Your task to perform on an android device: Open CNN.com Image 0: 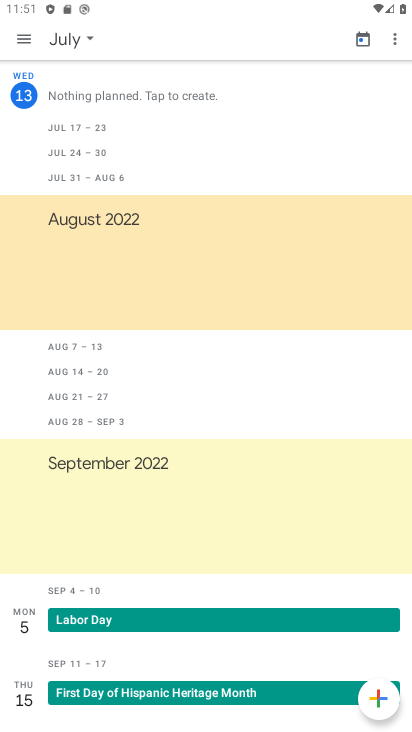
Step 0: press home button
Your task to perform on an android device: Open CNN.com Image 1: 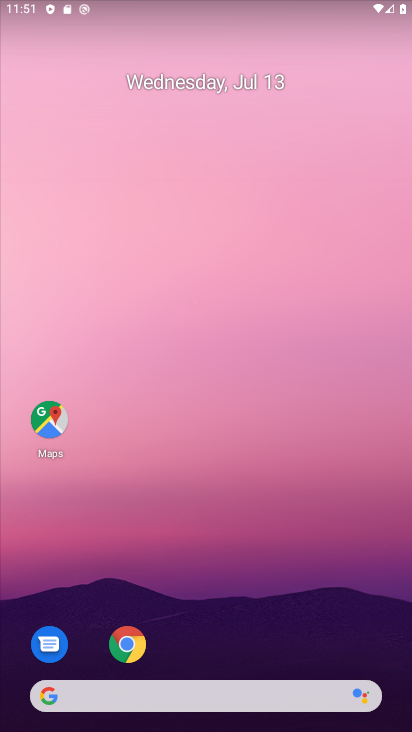
Step 1: click (133, 630)
Your task to perform on an android device: Open CNN.com Image 2: 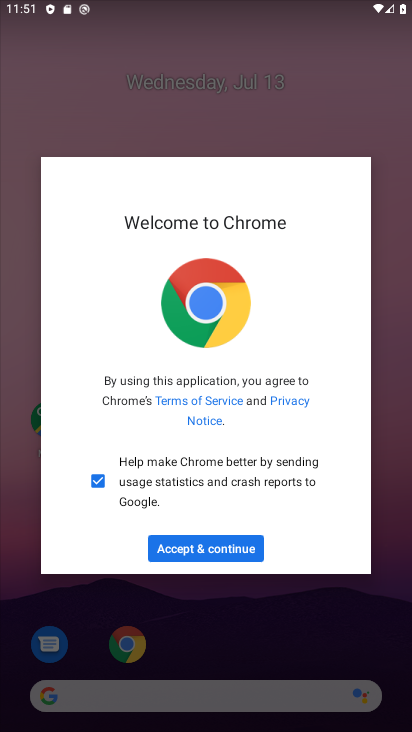
Step 2: click (241, 541)
Your task to perform on an android device: Open CNN.com Image 3: 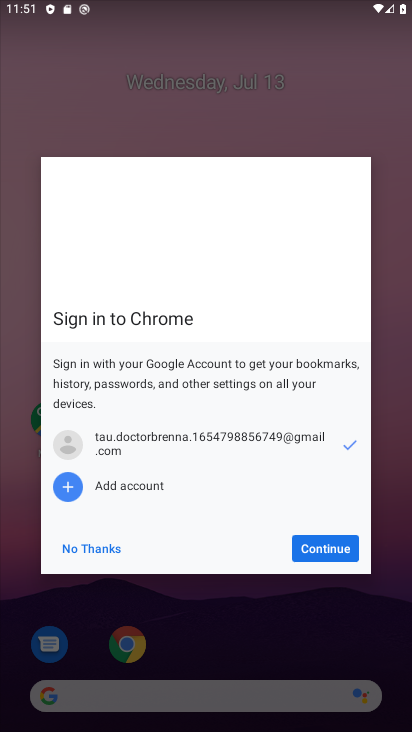
Step 3: click (322, 541)
Your task to perform on an android device: Open CNN.com Image 4: 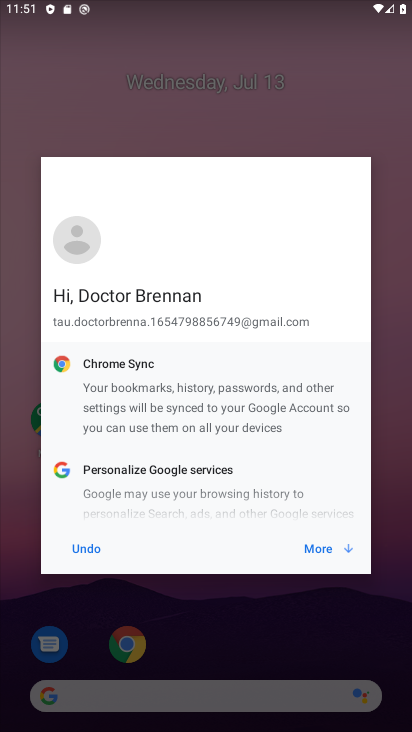
Step 4: click (322, 541)
Your task to perform on an android device: Open CNN.com Image 5: 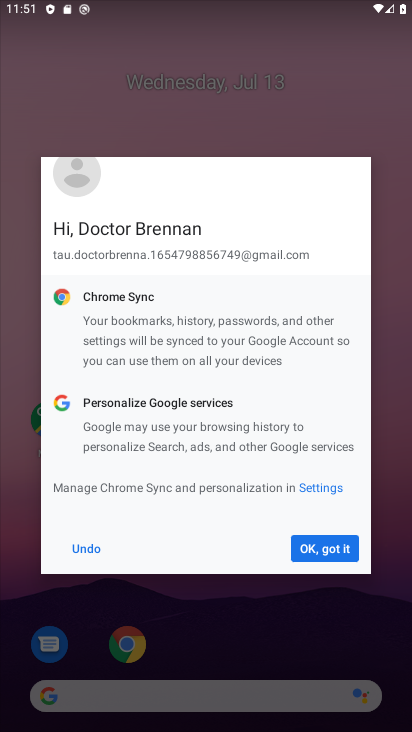
Step 5: click (324, 545)
Your task to perform on an android device: Open CNN.com Image 6: 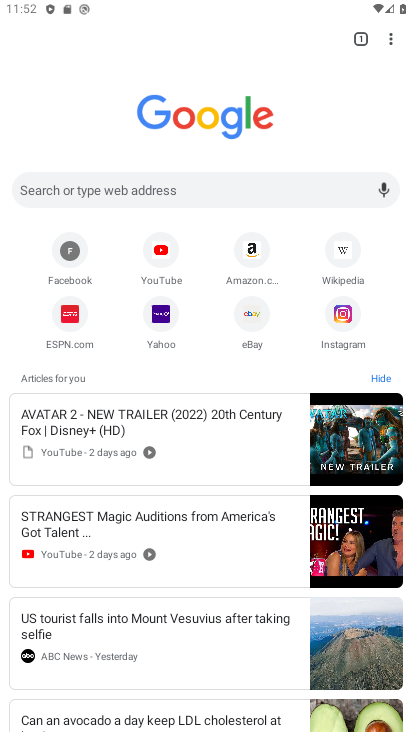
Step 6: click (192, 198)
Your task to perform on an android device: Open CNN.com Image 7: 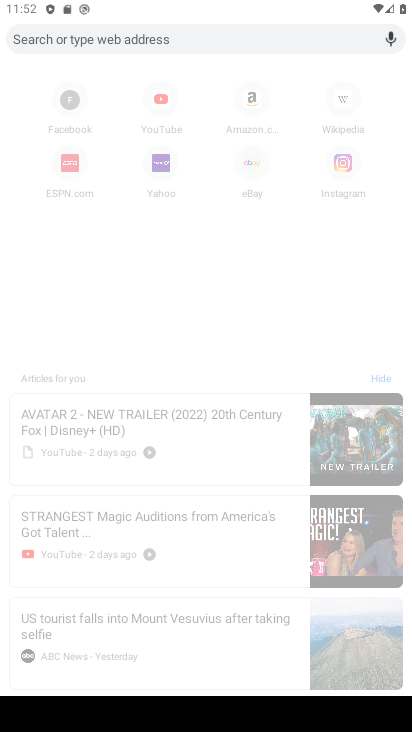
Step 7: type "cnn"
Your task to perform on an android device: Open CNN.com Image 8: 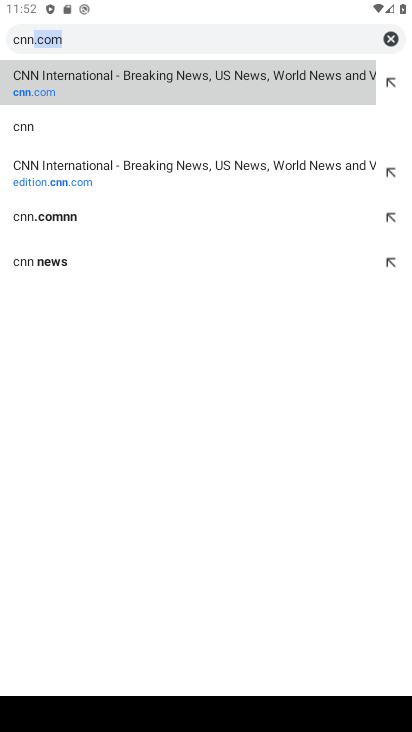
Step 8: click (178, 65)
Your task to perform on an android device: Open CNN.com Image 9: 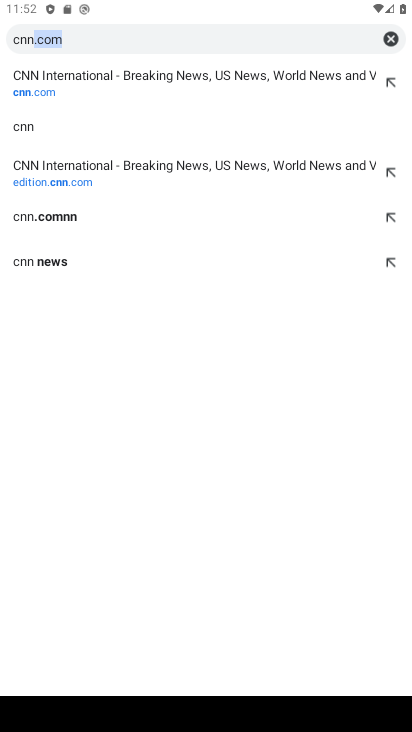
Step 9: click (113, 82)
Your task to perform on an android device: Open CNN.com Image 10: 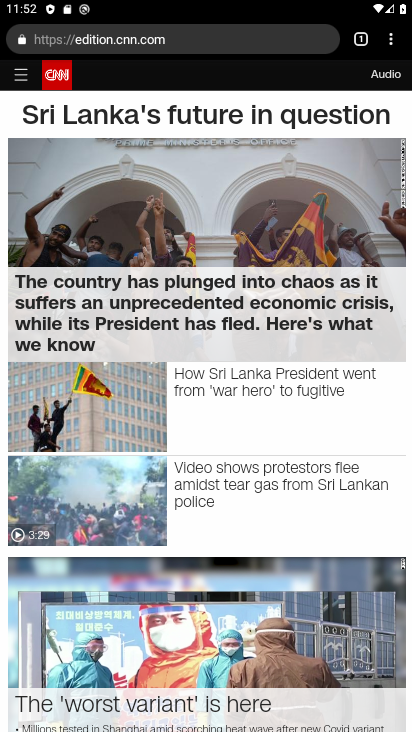
Step 10: task complete